Your task to perform on an android device: Open calendar and show me the second week of next month Image 0: 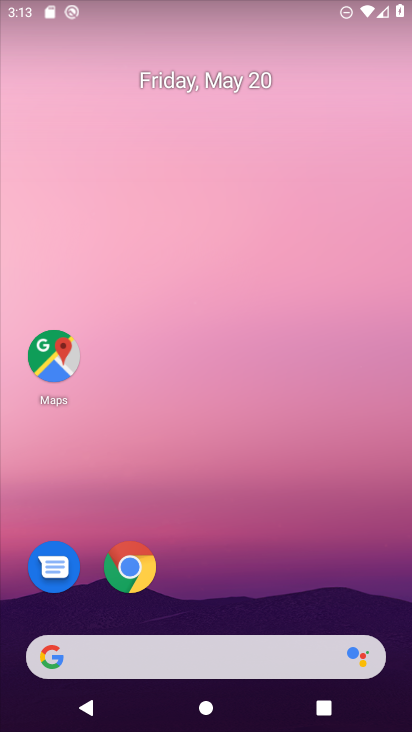
Step 0: drag from (222, 722) to (225, 0)
Your task to perform on an android device: Open calendar and show me the second week of next month Image 1: 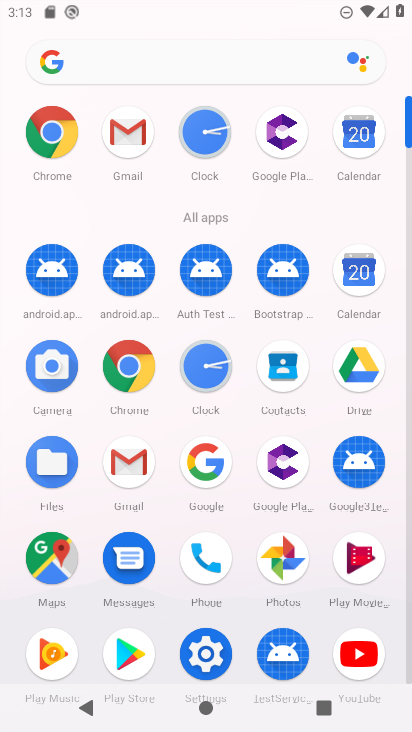
Step 1: click (361, 280)
Your task to perform on an android device: Open calendar and show me the second week of next month Image 2: 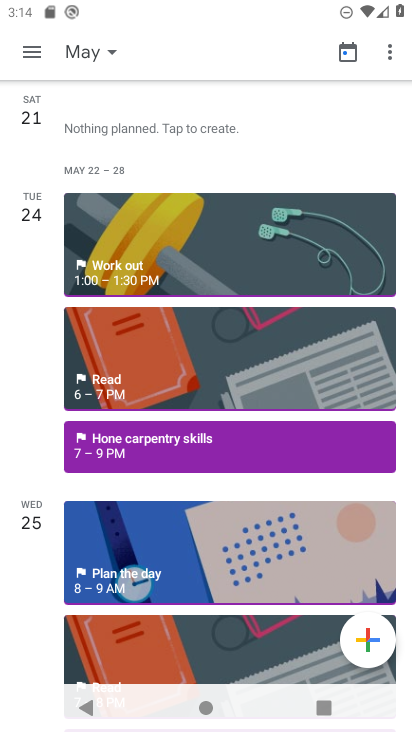
Step 2: click (95, 47)
Your task to perform on an android device: Open calendar and show me the second week of next month Image 3: 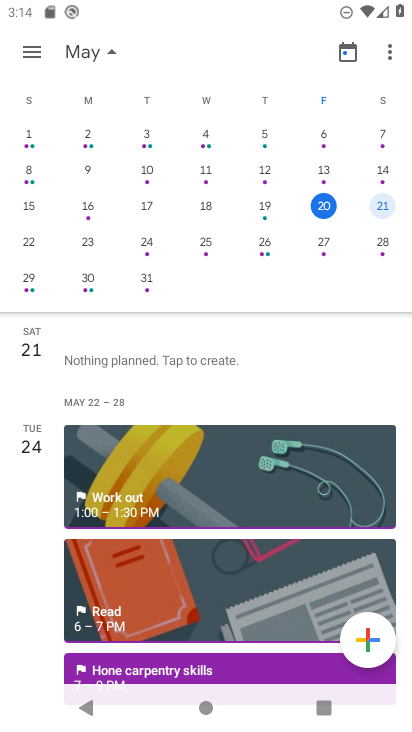
Step 3: drag from (337, 200) to (7, 196)
Your task to perform on an android device: Open calendar and show me the second week of next month Image 4: 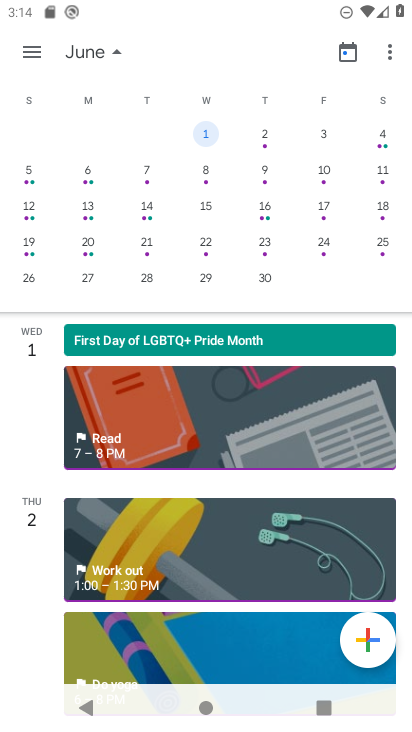
Step 4: click (84, 211)
Your task to perform on an android device: Open calendar and show me the second week of next month Image 5: 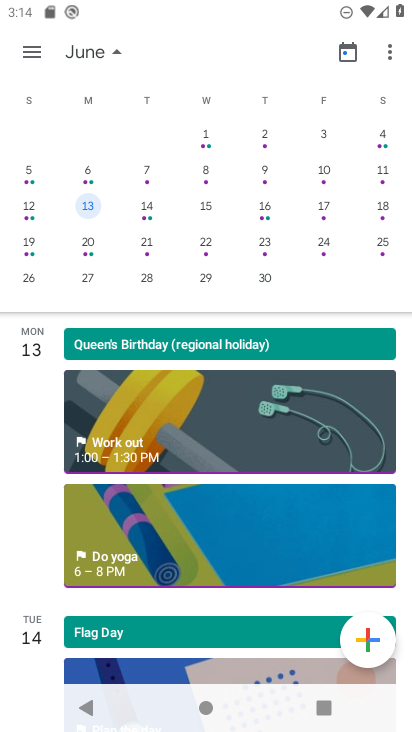
Step 5: click (87, 210)
Your task to perform on an android device: Open calendar and show me the second week of next month Image 6: 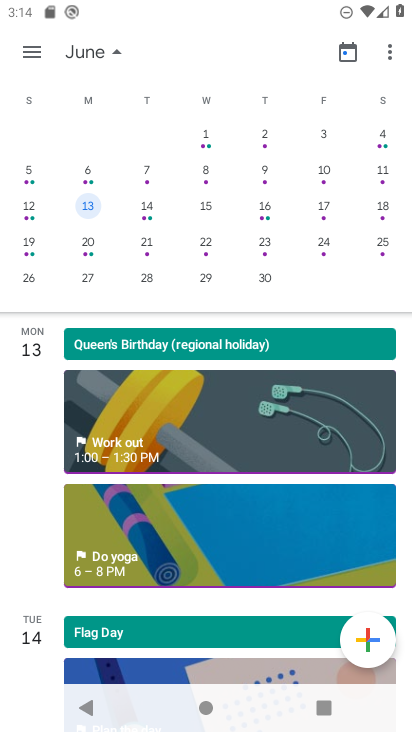
Step 6: click (114, 50)
Your task to perform on an android device: Open calendar and show me the second week of next month Image 7: 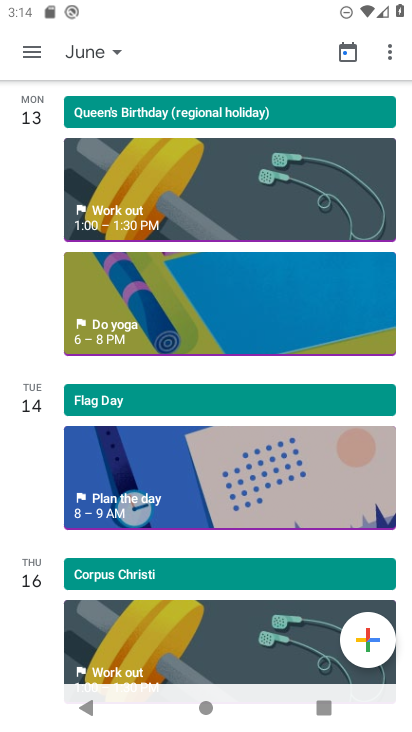
Step 7: task complete